Your task to perform on an android device: turn off picture-in-picture Image 0: 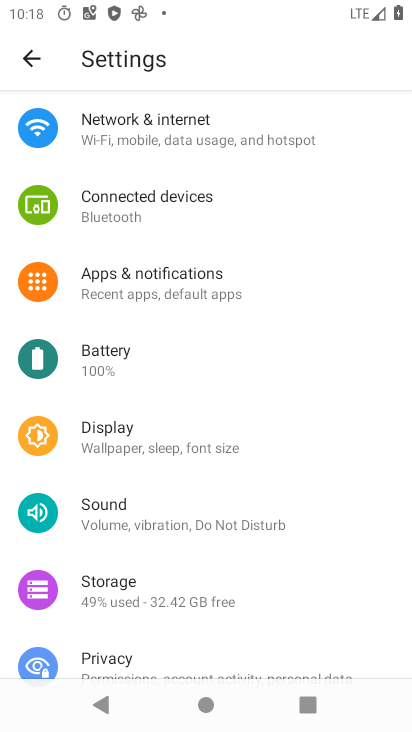
Step 0: press home button
Your task to perform on an android device: turn off picture-in-picture Image 1: 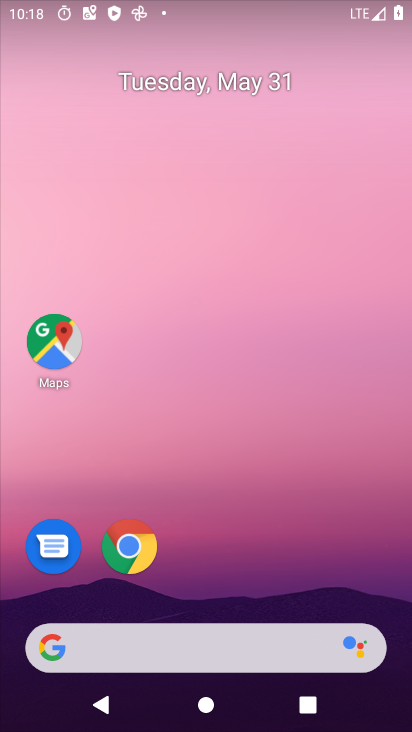
Step 1: drag from (301, 556) to (305, 153)
Your task to perform on an android device: turn off picture-in-picture Image 2: 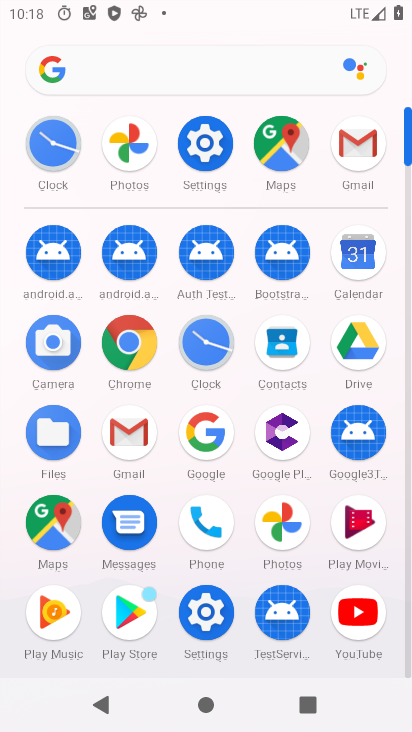
Step 2: click (281, 513)
Your task to perform on an android device: turn off picture-in-picture Image 3: 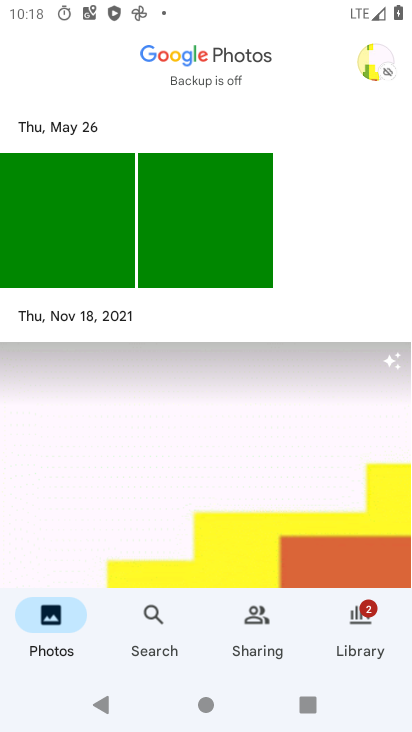
Step 3: click (381, 40)
Your task to perform on an android device: turn off picture-in-picture Image 4: 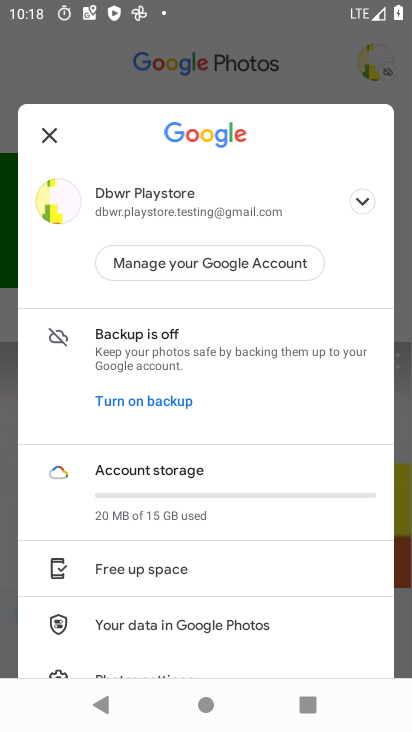
Step 4: drag from (200, 601) to (189, 158)
Your task to perform on an android device: turn off picture-in-picture Image 5: 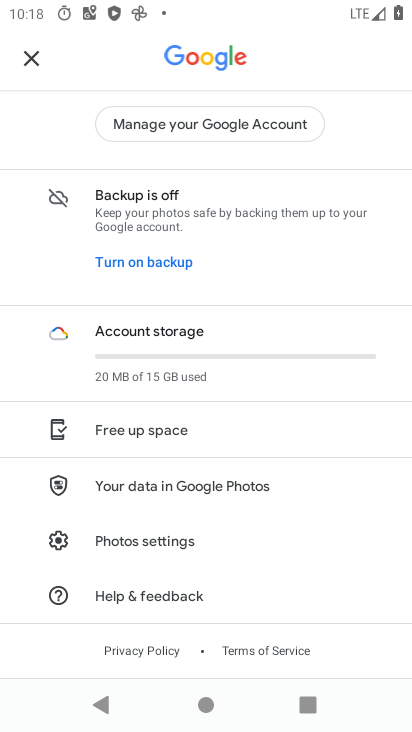
Step 5: click (94, 541)
Your task to perform on an android device: turn off picture-in-picture Image 6: 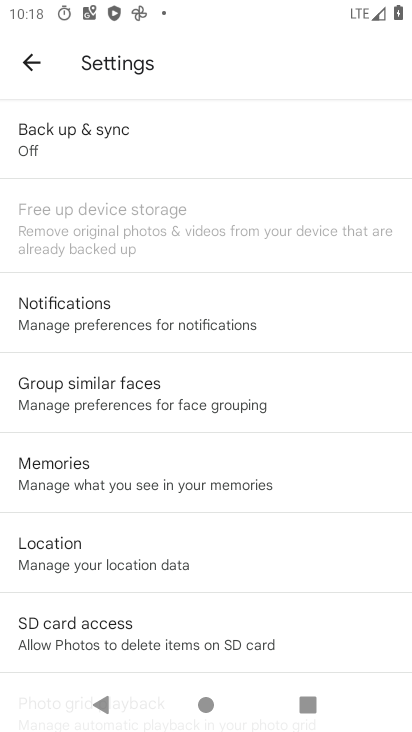
Step 6: task complete